Your task to perform on an android device: turn on bluetooth scan Image 0: 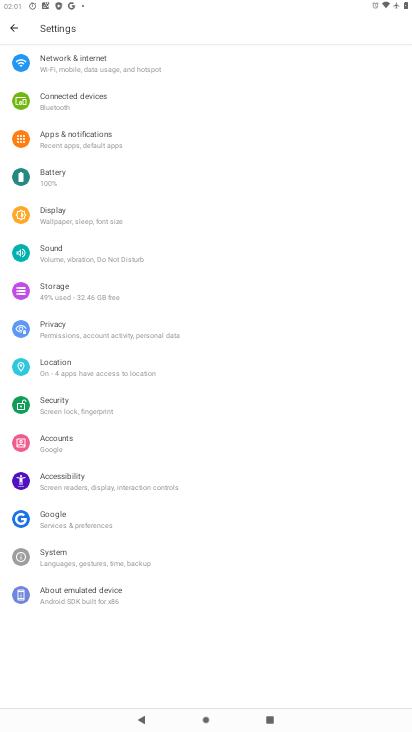
Step 0: click (74, 365)
Your task to perform on an android device: turn on bluetooth scan Image 1: 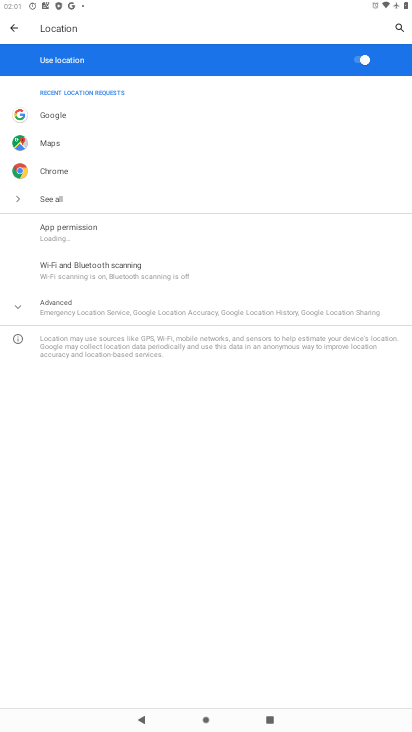
Step 1: click (102, 274)
Your task to perform on an android device: turn on bluetooth scan Image 2: 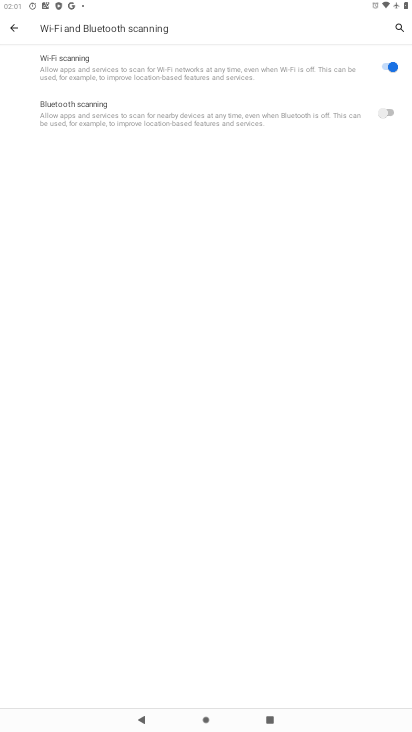
Step 2: click (394, 109)
Your task to perform on an android device: turn on bluetooth scan Image 3: 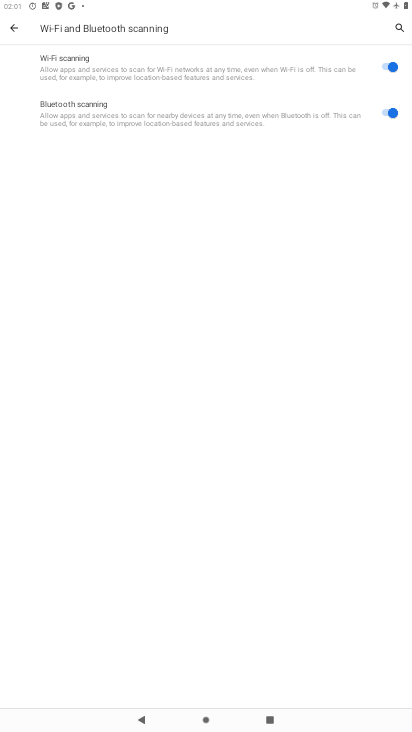
Step 3: task complete